Your task to perform on an android device: turn notification dots on Image 0: 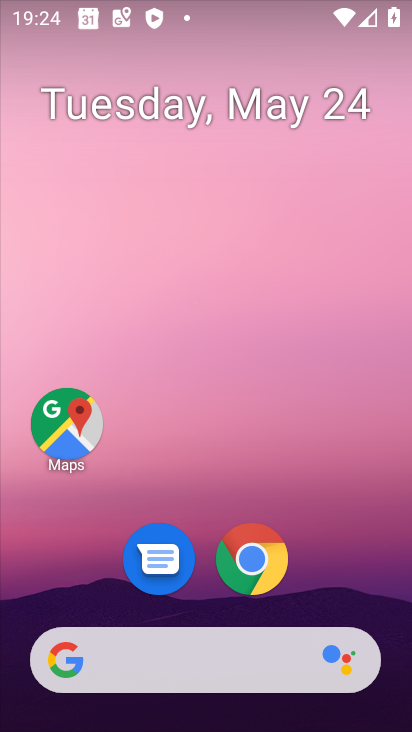
Step 0: press home button
Your task to perform on an android device: turn notification dots on Image 1: 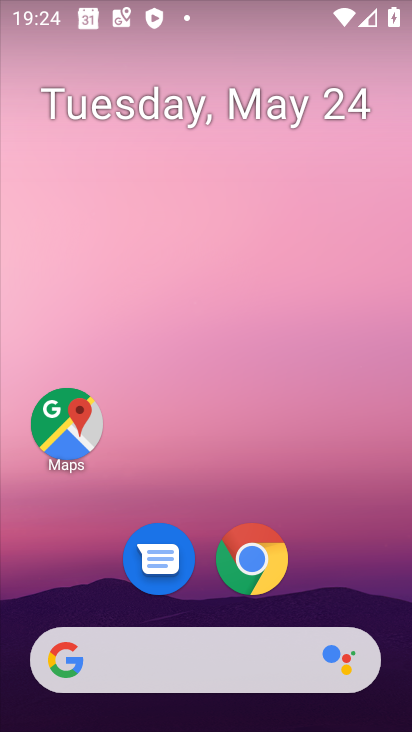
Step 1: drag from (166, 661) to (298, 166)
Your task to perform on an android device: turn notification dots on Image 2: 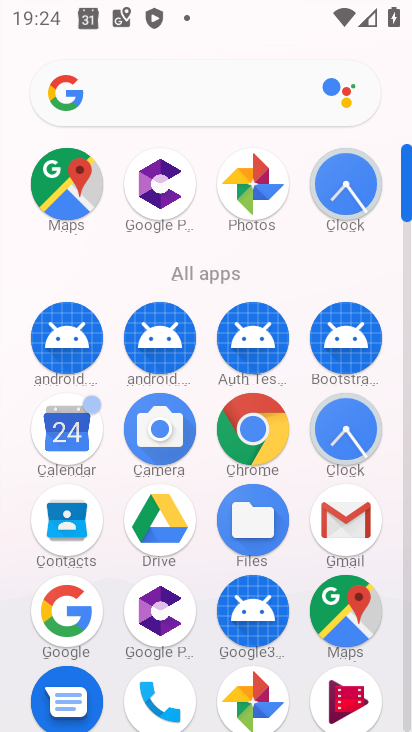
Step 2: drag from (186, 520) to (250, 328)
Your task to perform on an android device: turn notification dots on Image 3: 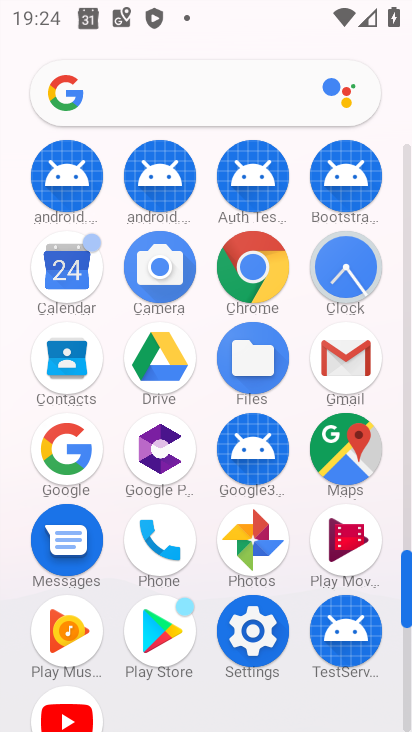
Step 3: click (247, 614)
Your task to perform on an android device: turn notification dots on Image 4: 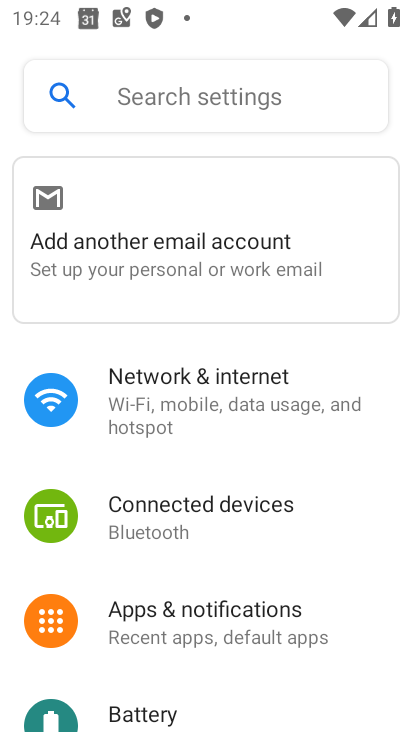
Step 4: drag from (256, 551) to (400, 191)
Your task to perform on an android device: turn notification dots on Image 5: 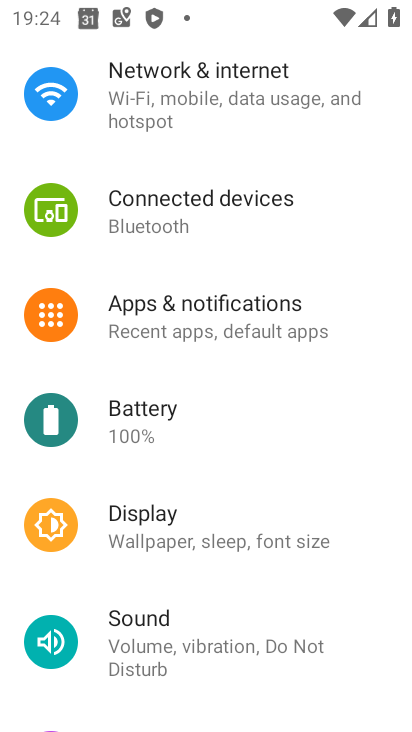
Step 5: click (259, 320)
Your task to perform on an android device: turn notification dots on Image 6: 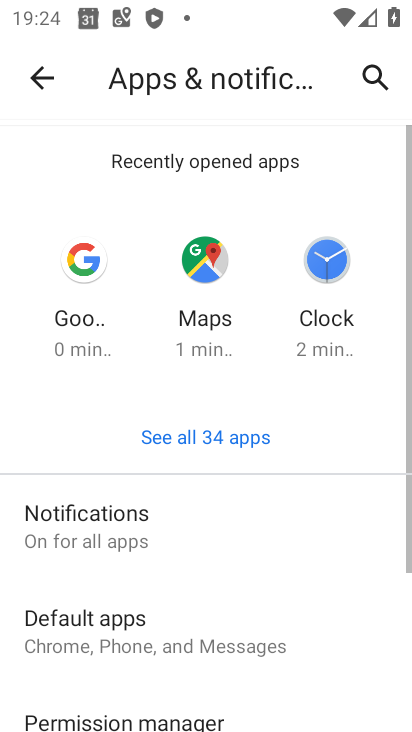
Step 6: click (121, 523)
Your task to perform on an android device: turn notification dots on Image 7: 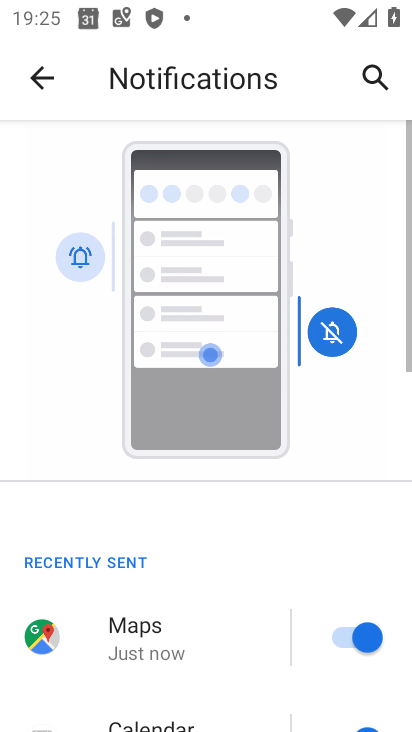
Step 7: drag from (198, 624) to (322, 204)
Your task to perform on an android device: turn notification dots on Image 8: 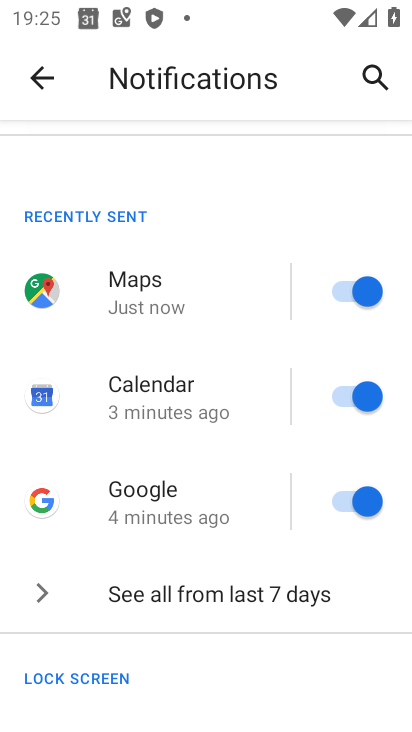
Step 8: drag from (189, 557) to (290, 119)
Your task to perform on an android device: turn notification dots on Image 9: 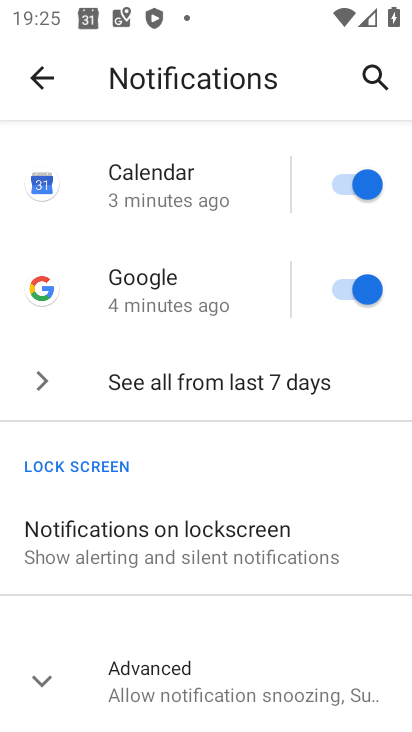
Step 9: click (186, 665)
Your task to perform on an android device: turn notification dots on Image 10: 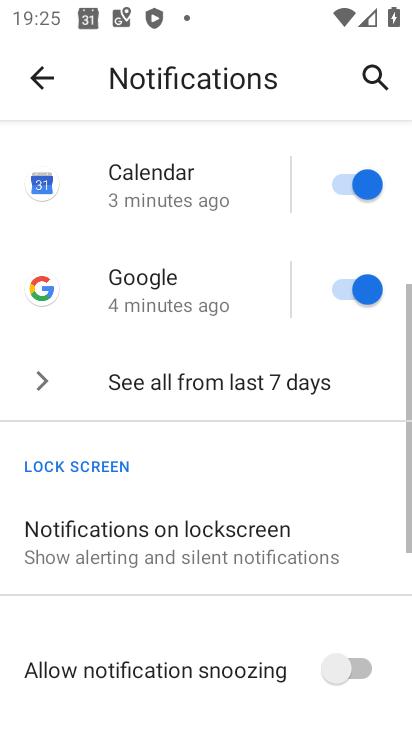
Step 10: task complete